Your task to perform on an android device: install app "Mercado Libre" Image 0: 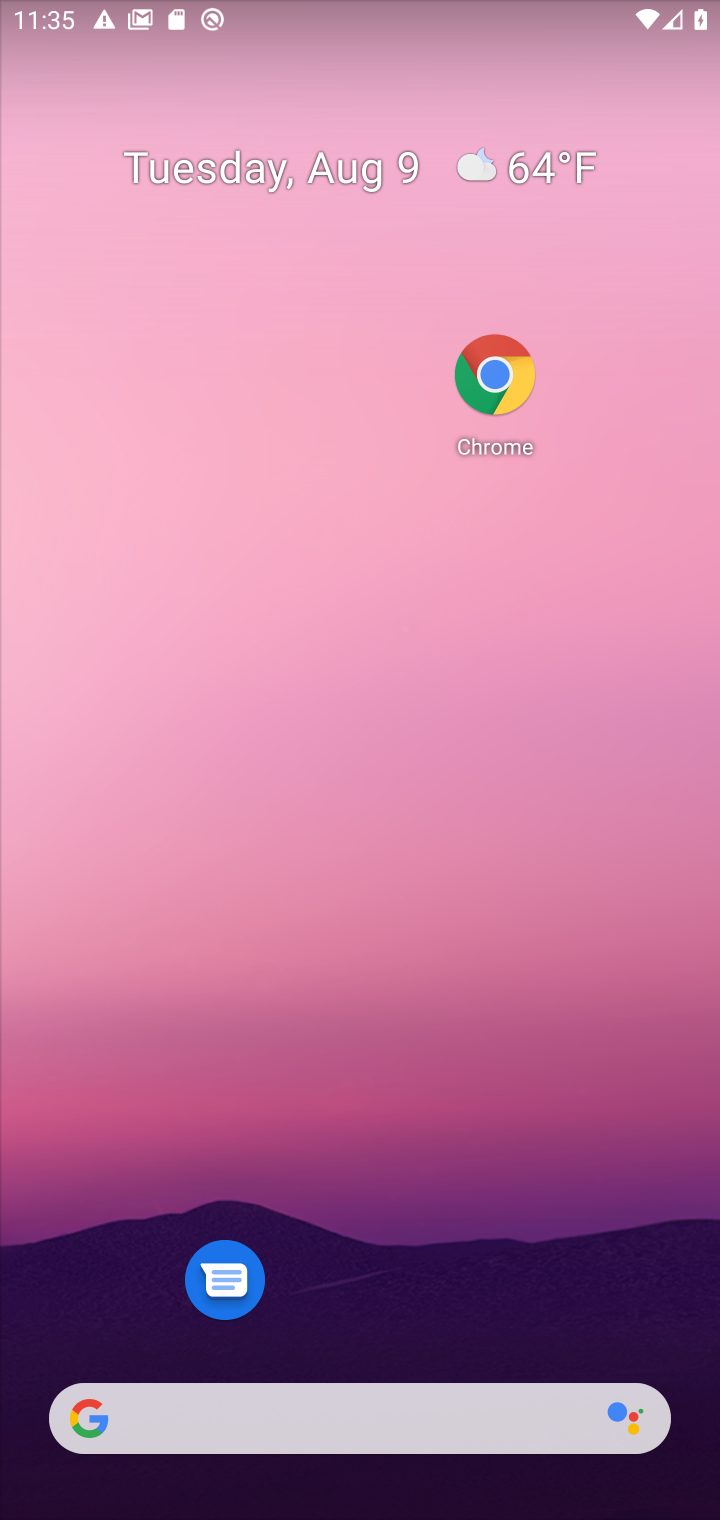
Step 0: drag from (371, 1374) to (203, 176)
Your task to perform on an android device: install app "Mercado Libre" Image 1: 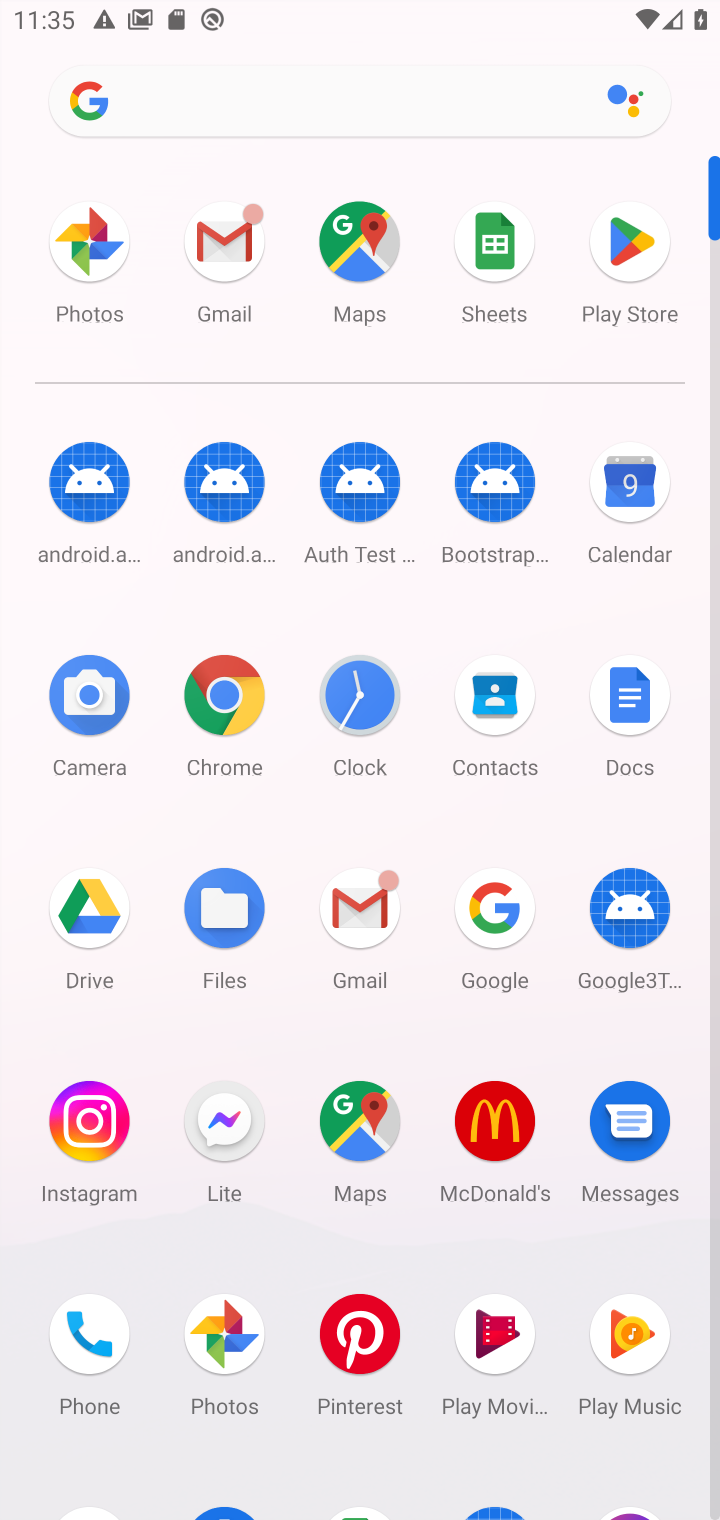
Step 1: drag from (297, 1232) to (211, 291)
Your task to perform on an android device: install app "Mercado Libre" Image 2: 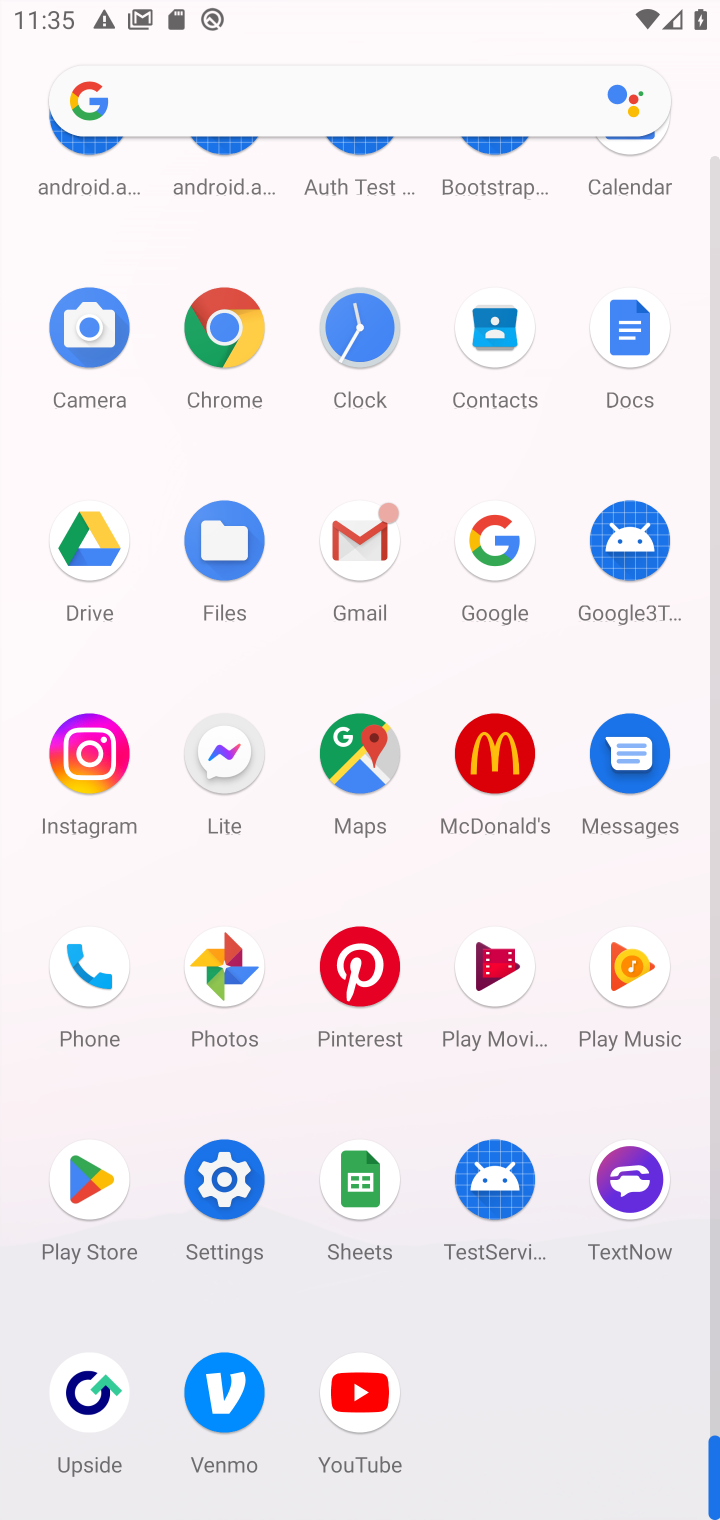
Step 2: click (83, 1161)
Your task to perform on an android device: install app "Mercado Libre" Image 3: 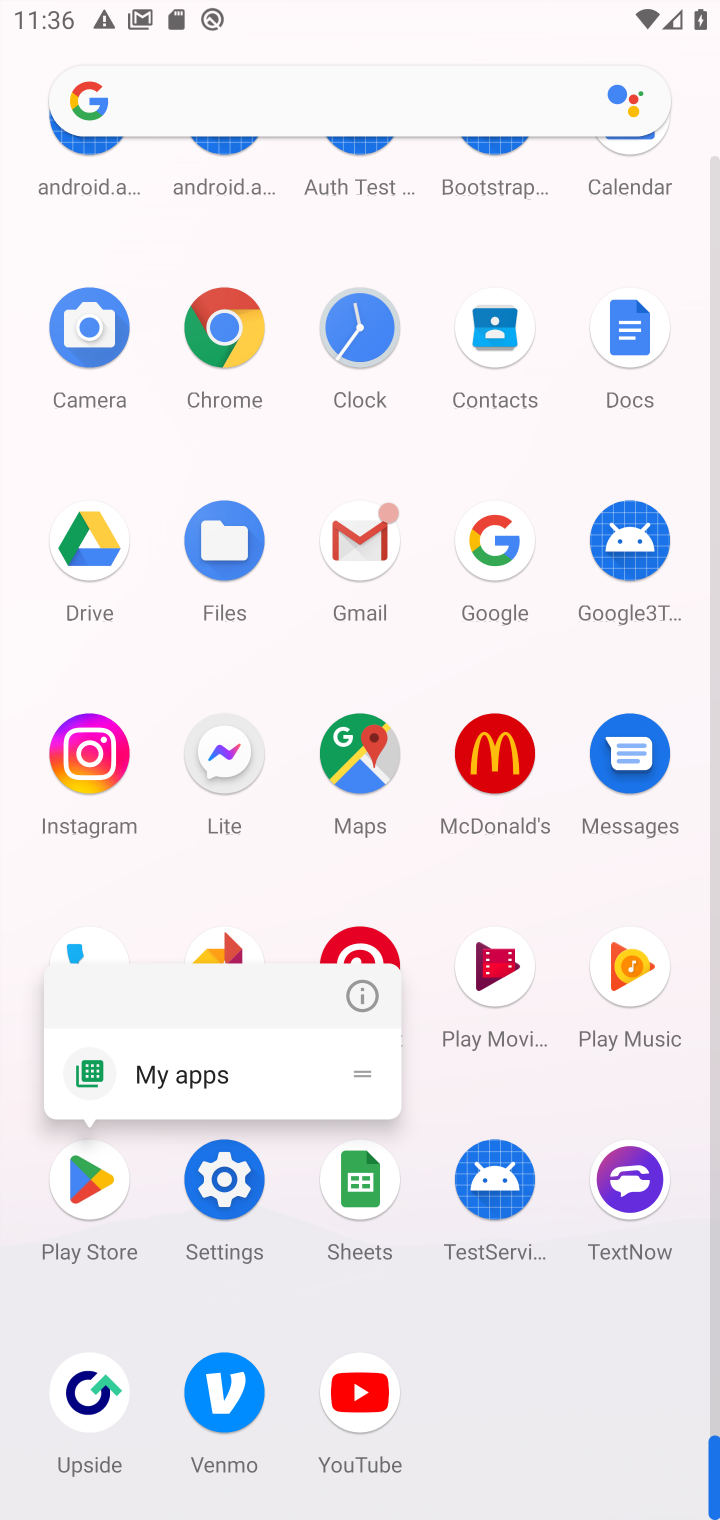
Step 3: click (91, 1184)
Your task to perform on an android device: install app "Mercado Libre" Image 4: 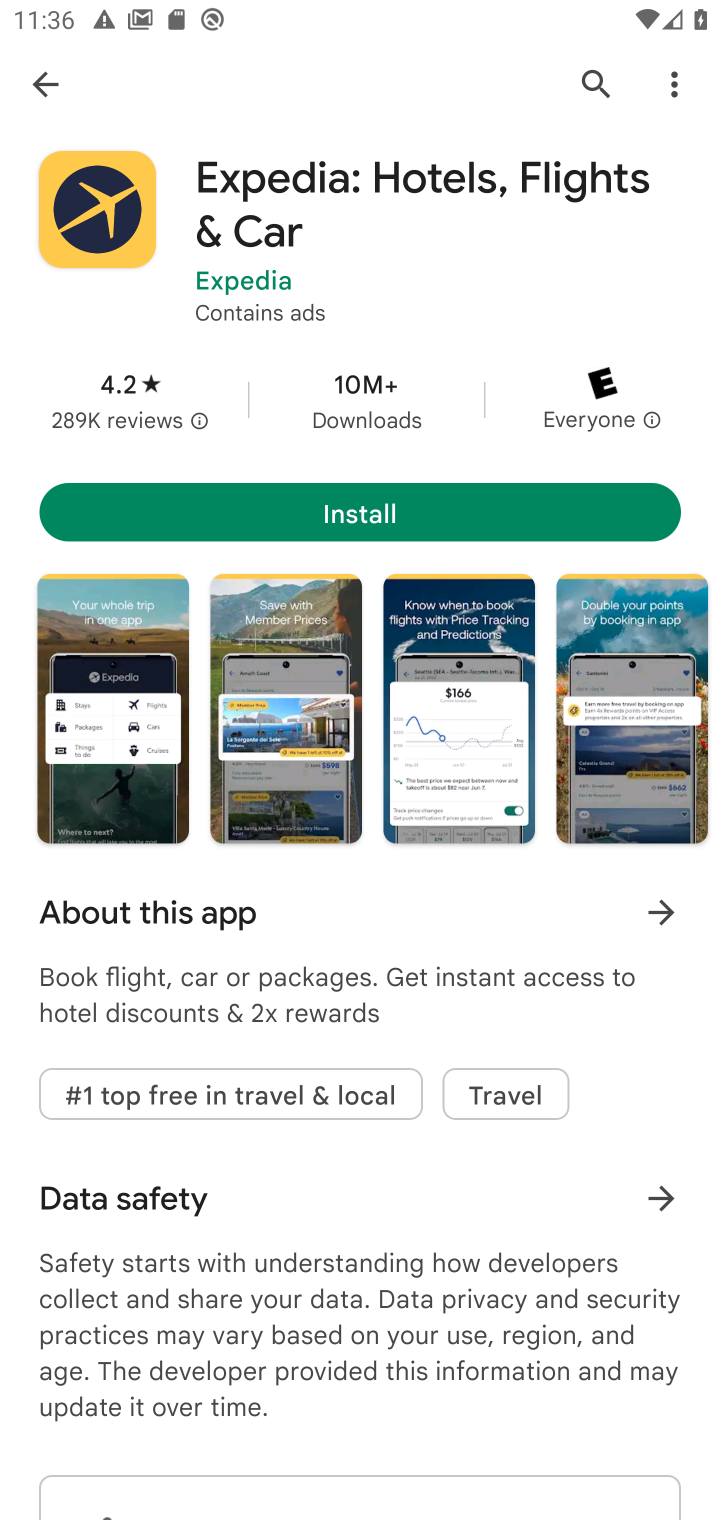
Step 4: click (56, 100)
Your task to perform on an android device: install app "Mercado Libre" Image 5: 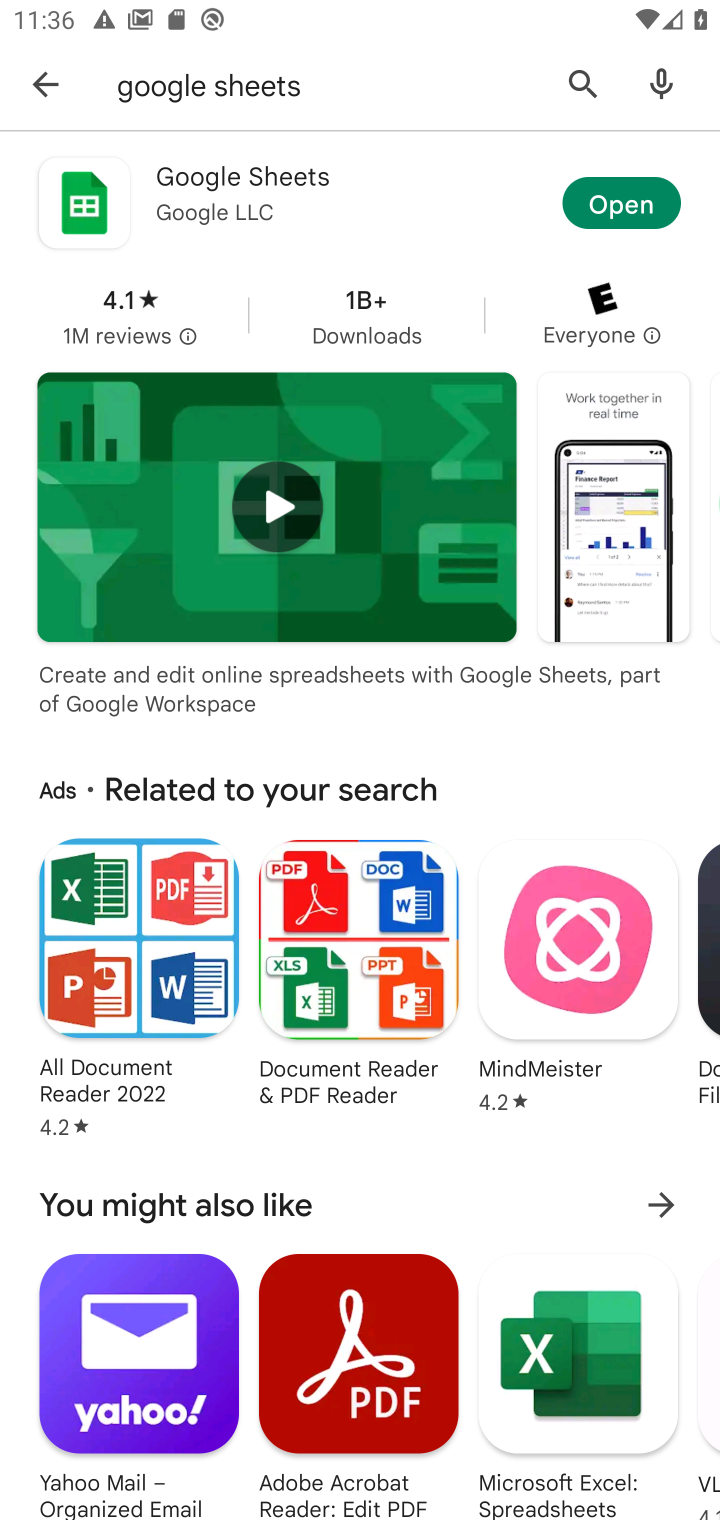
Step 5: click (43, 59)
Your task to perform on an android device: install app "Mercado Libre" Image 6: 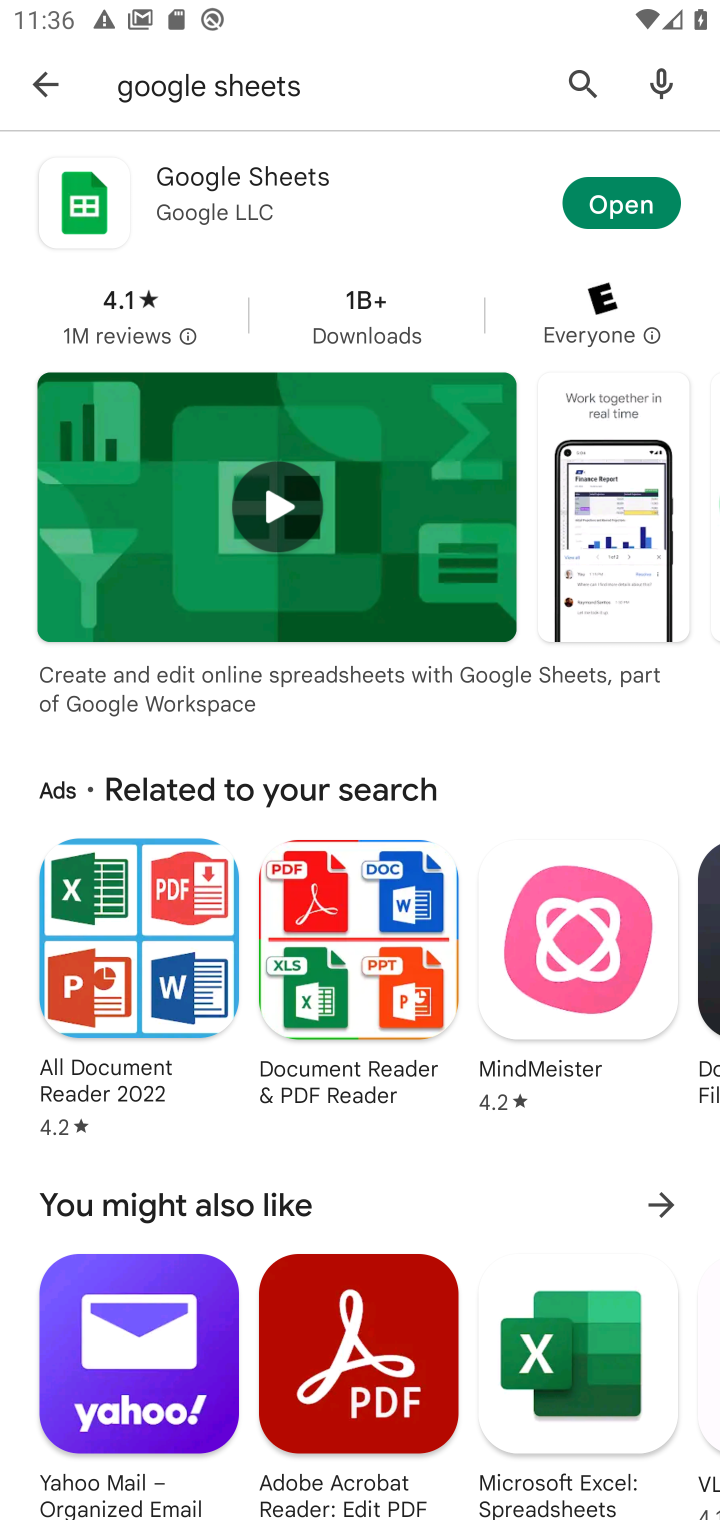
Step 6: click (61, 83)
Your task to perform on an android device: install app "Mercado Libre" Image 7: 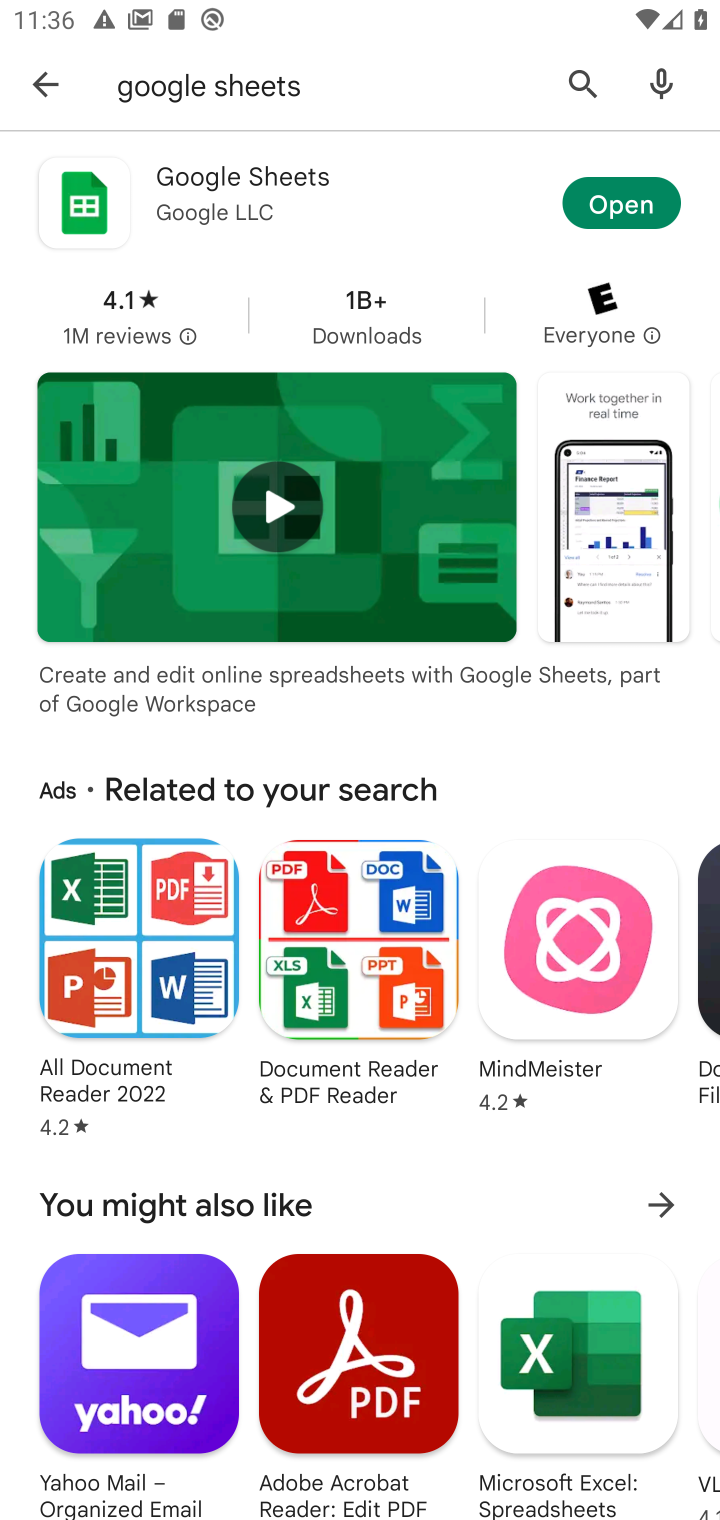
Step 7: click (30, 83)
Your task to perform on an android device: install app "Mercado Libre" Image 8: 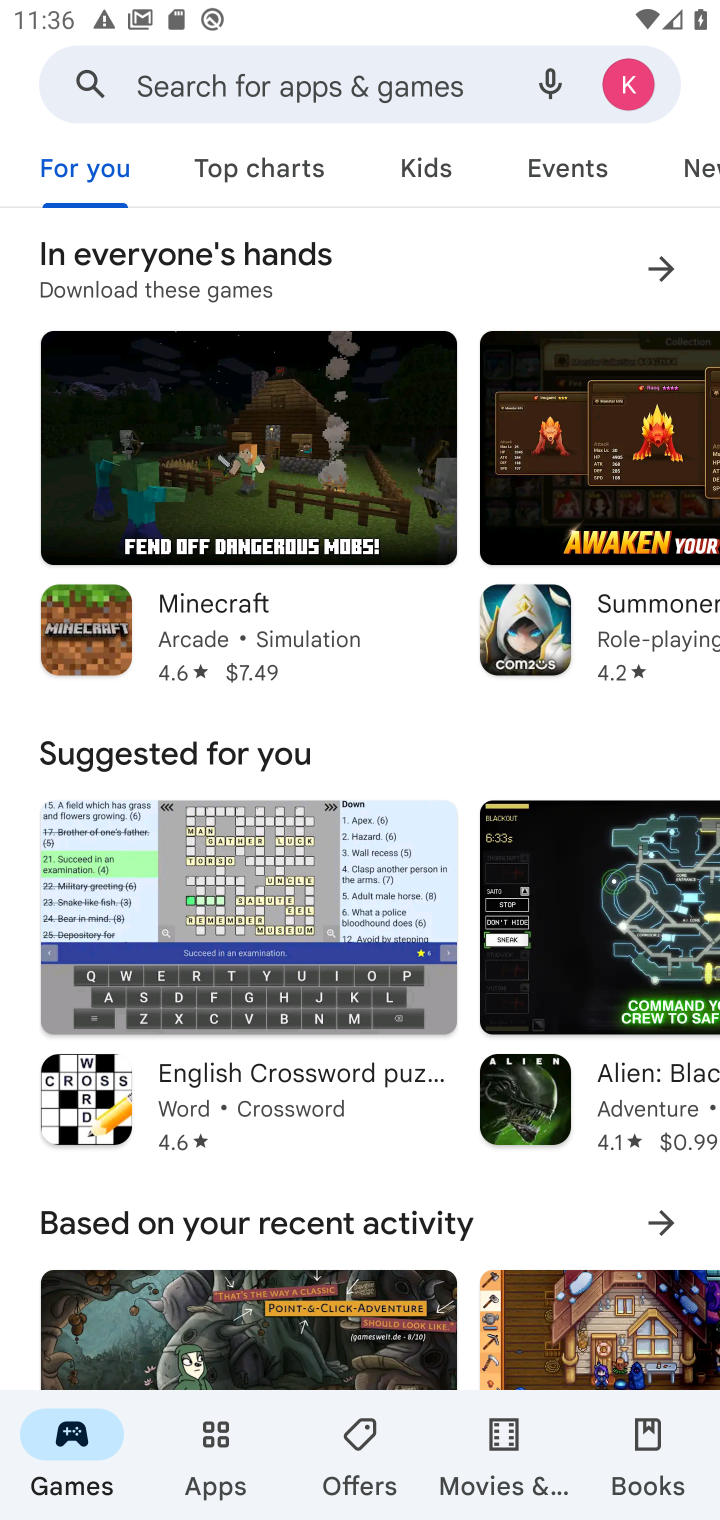
Step 8: click (376, 97)
Your task to perform on an android device: install app "Mercado Libre" Image 9: 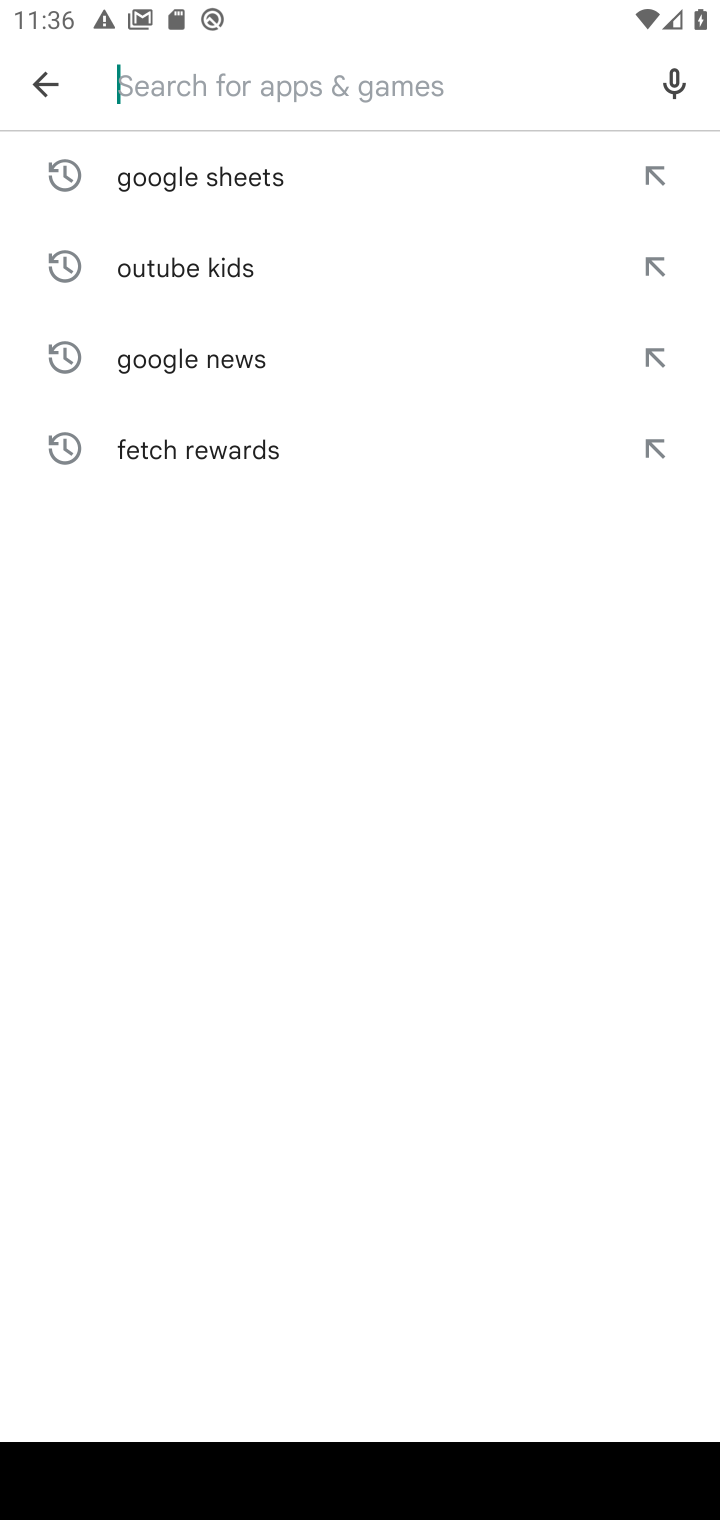
Step 9: type "Mercado Libre"
Your task to perform on an android device: install app "Mercado Libre" Image 10: 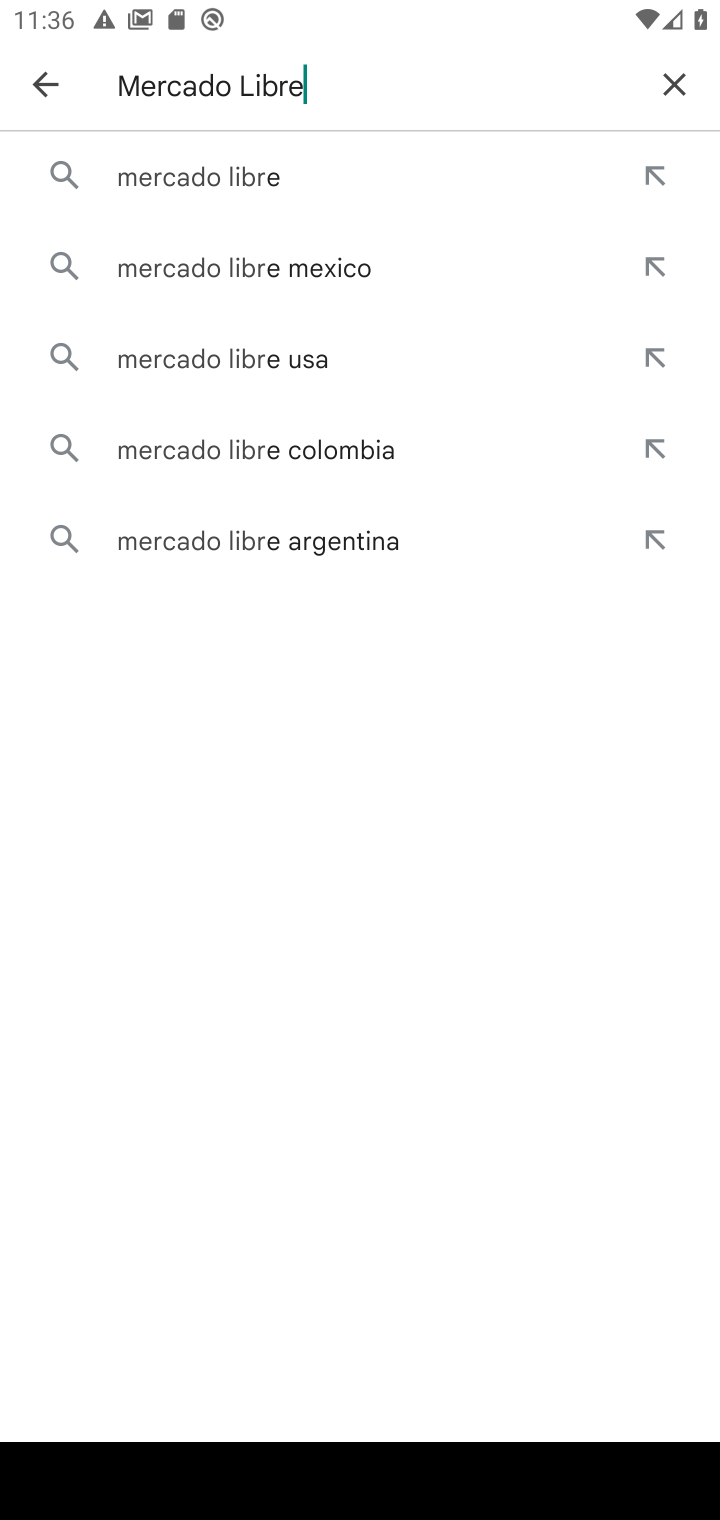
Step 10: type ""
Your task to perform on an android device: install app "Mercado Libre" Image 11: 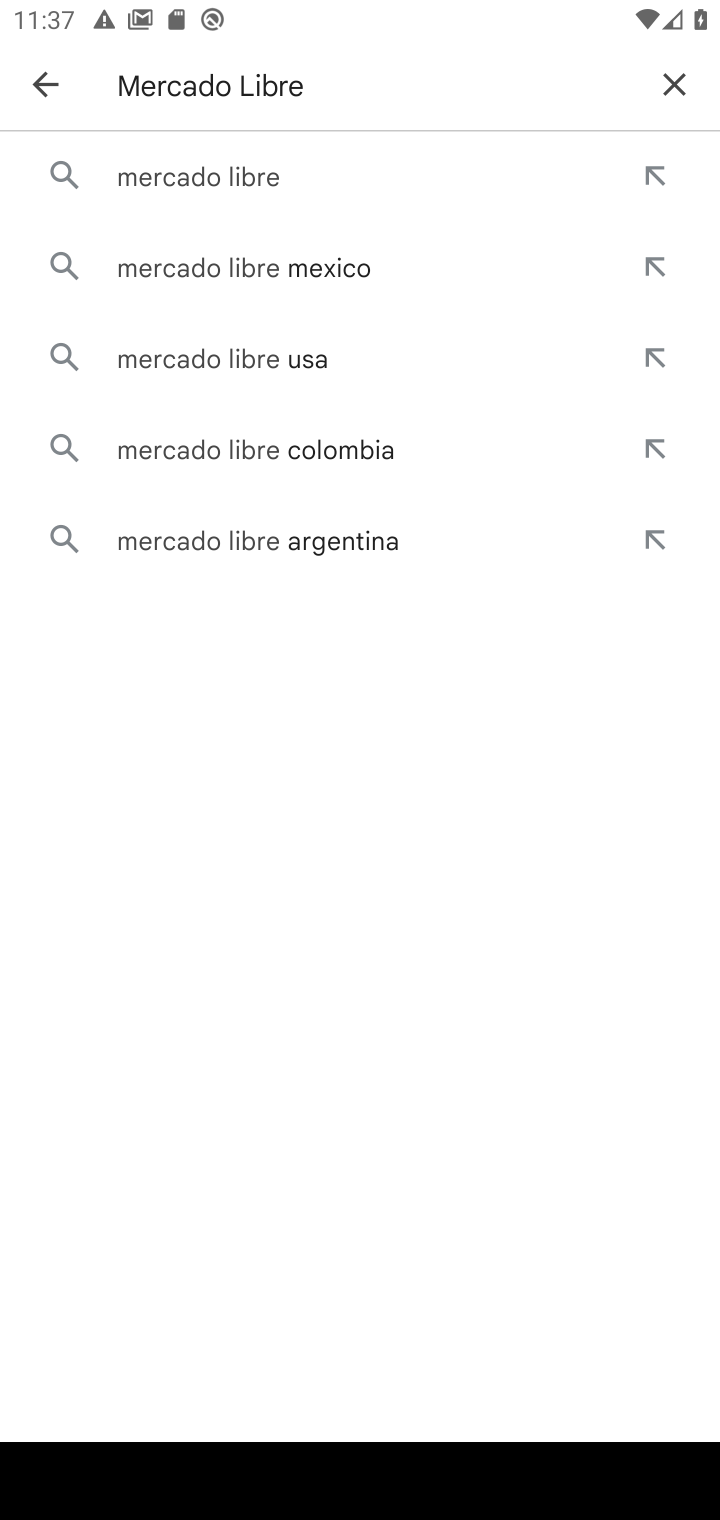
Step 11: click (259, 192)
Your task to perform on an android device: install app "Mercado Libre" Image 12: 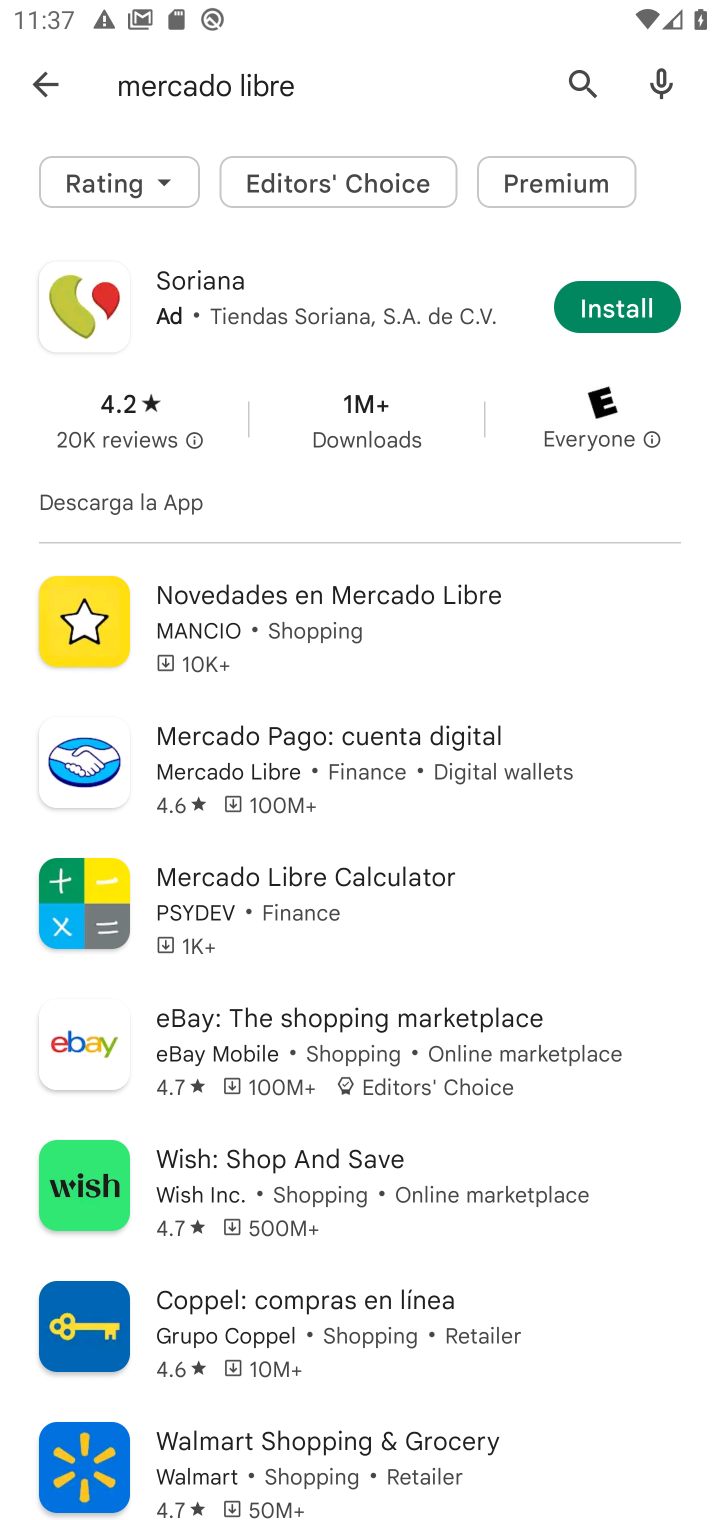
Step 12: task complete